Your task to perform on an android device: check storage Image 0: 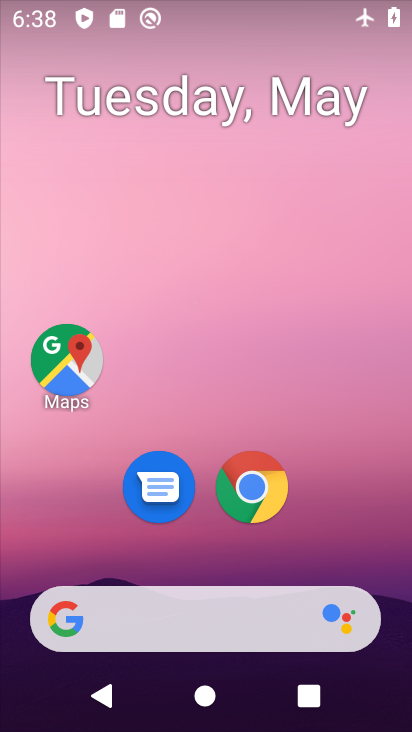
Step 0: drag from (341, 524) to (205, 132)
Your task to perform on an android device: check storage Image 1: 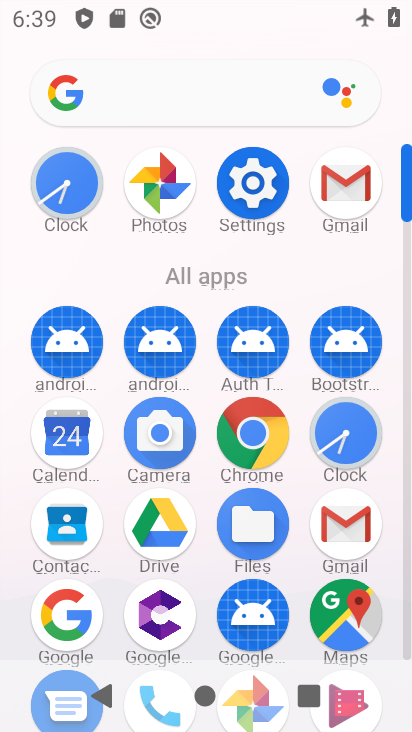
Step 1: click (259, 175)
Your task to perform on an android device: check storage Image 2: 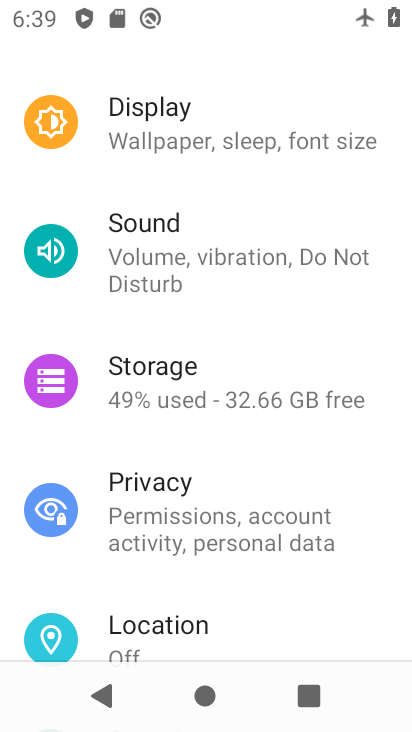
Step 2: click (146, 355)
Your task to perform on an android device: check storage Image 3: 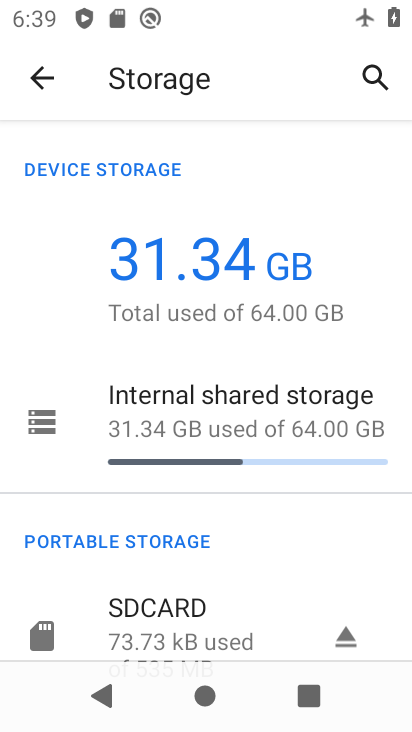
Step 3: task complete